Your task to perform on an android device: Turn on the flashlight Image 0: 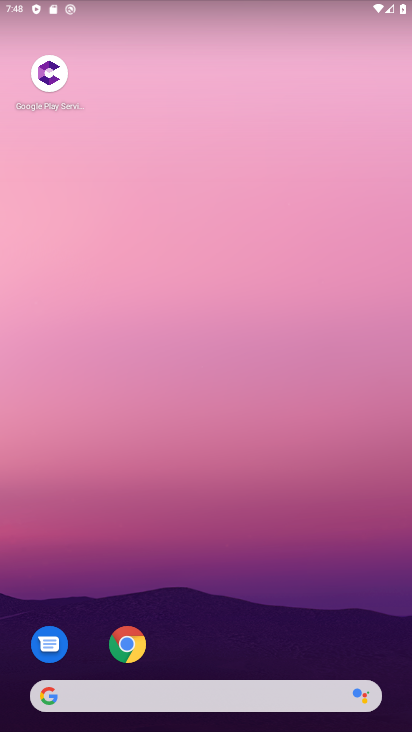
Step 0: drag from (235, 347) to (225, 57)
Your task to perform on an android device: Turn on the flashlight Image 1: 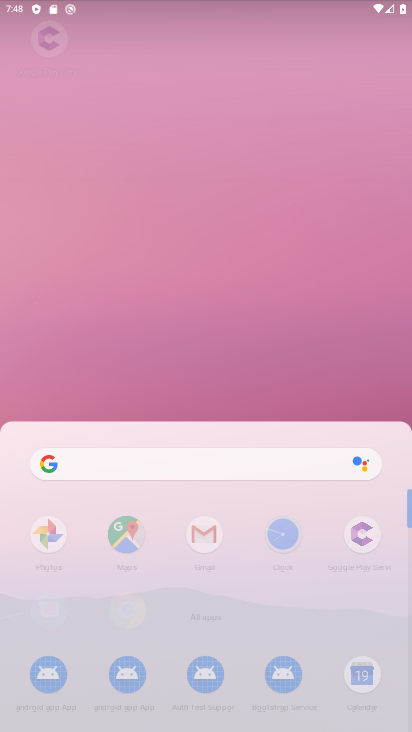
Step 1: task complete